Your task to perform on an android device: Play the new Ariana Grande video on YouTube Image 0: 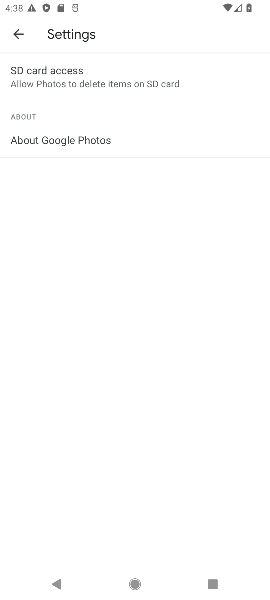
Step 0: click (134, 590)
Your task to perform on an android device: Play the new Ariana Grande video on YouTube Image 1: 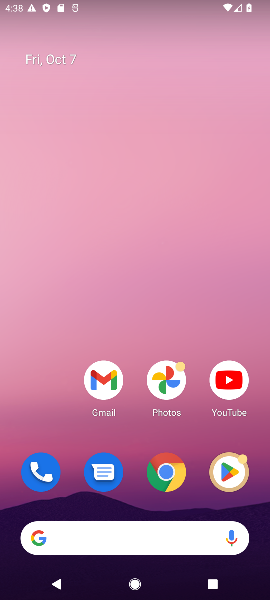
Step 1: click (230, 385)
Your task to perform on an android device: Play the new Ariana Grande video on YouTube Image 2: 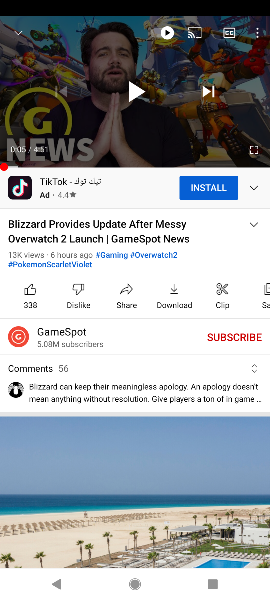
Step 2: drag from (107, 138) to (121, 407)
Your task to perform on an android device: Play the new Ariana Grande video on YouTube Image 3: 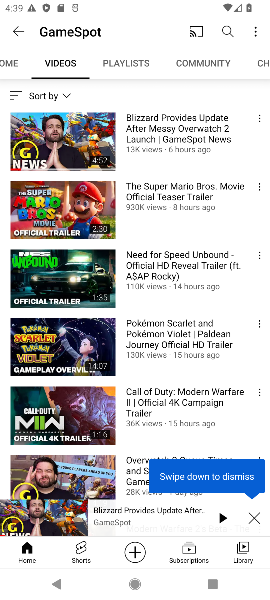
Step 3: click (230, 30)
Your task to perform on an android device: Play the new Ariana Grande video on YouTube Image 4: 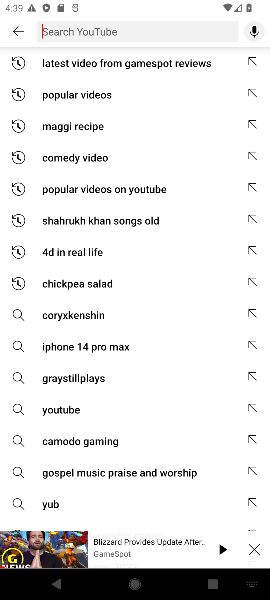
Step 4: type "new Ariana Grande"
Your task to perform on an android device: Play the new Ariana Grande video on YouTube Image 5: 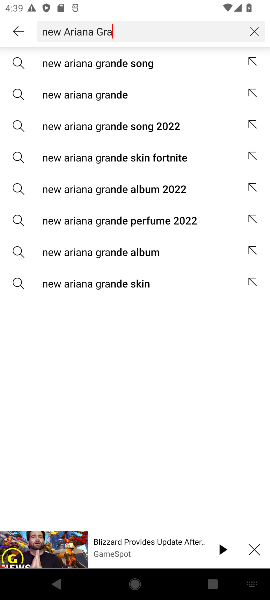
Step 5: type ""
Your task to perform on an android device: Play the new Ariana Grande video on YouTube Image 6: 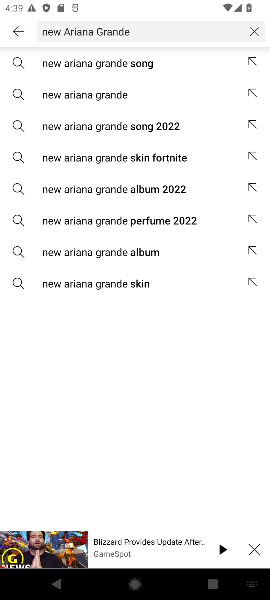
Step 6: click (127, 96)
Your task to perform on an android device: Play the new Ariana Grande video on YouTube Image 7: 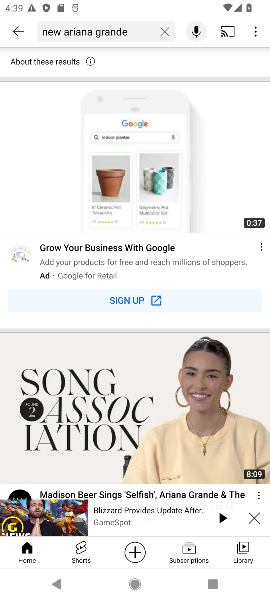
Step 7: drag from (192, 370) to (176, 225)
Your task to perform on an android device: Play the new Ariana Grande video on YouTube Image 8: 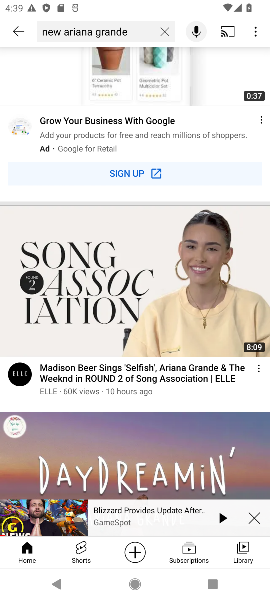
Step 8: drag from (195, 393) to (185, 244)
Your task to perform on an android device: Play the new Ariana Grande video on YouTube Image 9: 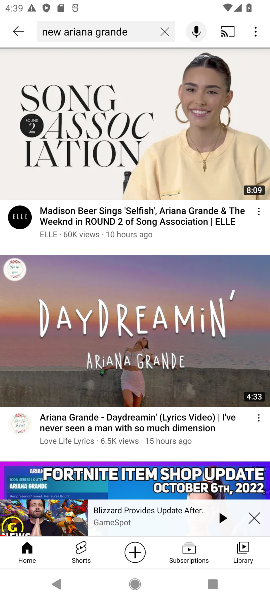
Step 9: click (131, 195)
Your task to perform on an android device: Play the new Ariana Grande video on YouTube Image 10: 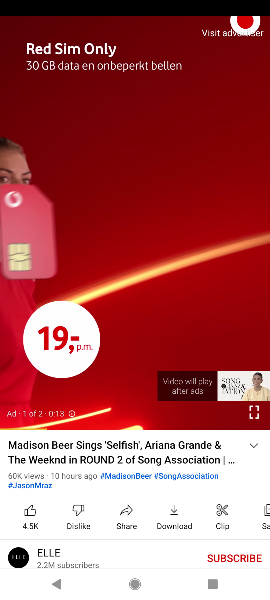
Step 10: drag from (130, 194) to (200, 511)
Your task to perform on an android device: Play the new Ariana Grande video on YouTube Image 11: 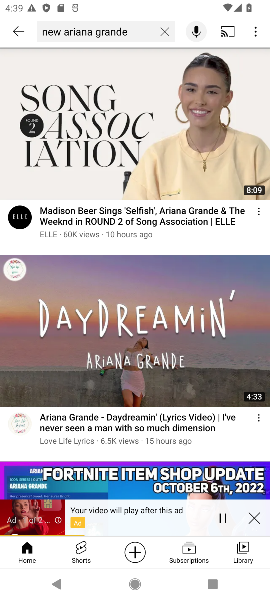
Step 11: drag from (158, 397) to (151, 188)
Your task to perform on an android device: Play the new Ariana Grande video on YouTube Image 12: 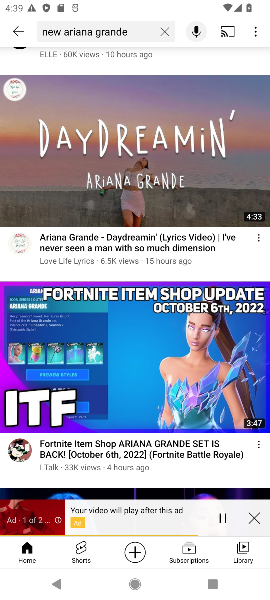
Step 12: click (139, 188)
Your task to perform on an android device: Play the new Ariana Grande video on YouTube Image 13: 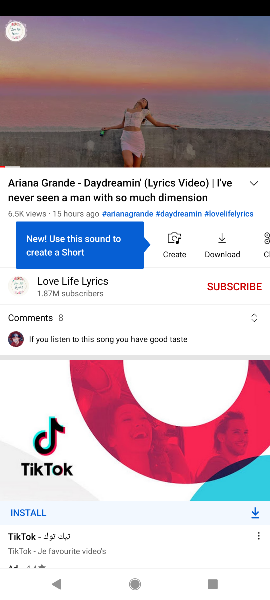
Step 13: task complete